Your task to perform on an android device: turn on location history Image 0: 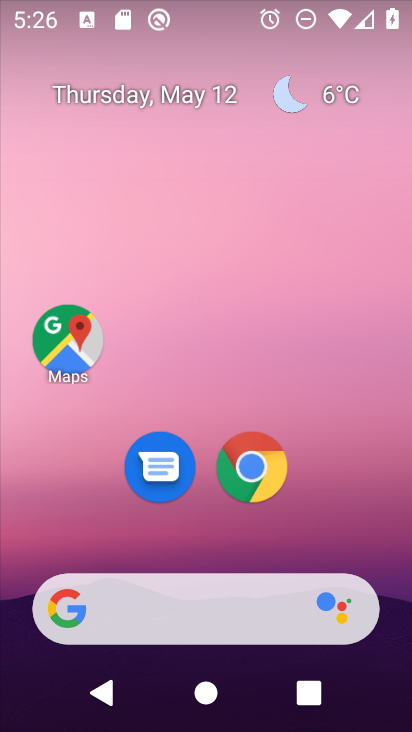
Step 0: drag from (337, 550) to (326, 5)
Your task to perform on an android device: turn on location history Image 1: 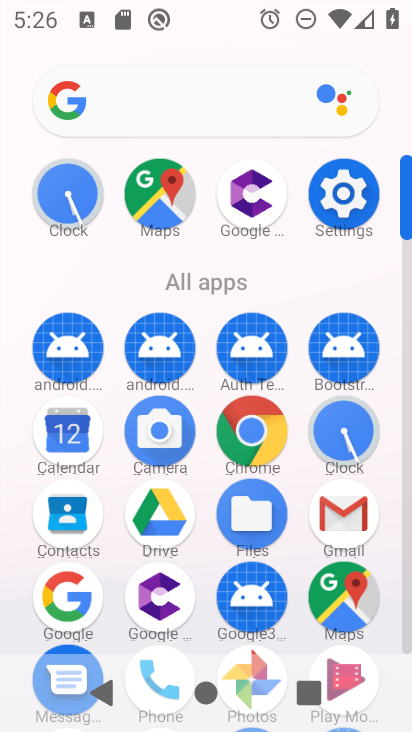
Step 1: click (343, 212)
Your task to perform on an android device: turn on location history Image 2: 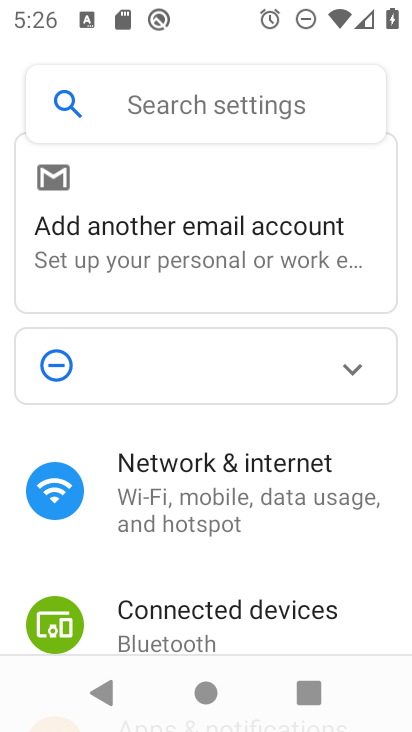
Step 2: drag from (313, 604) to (339, 61)
Your task to perform on an android device: turn on location history Image 3: 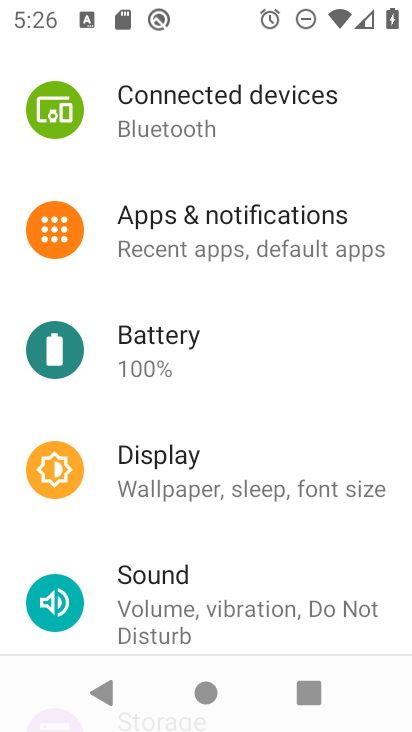
Step 3: drag from (309, 544) to (362, 154)
Your task to perform on an android device: turn on location history Image 4: 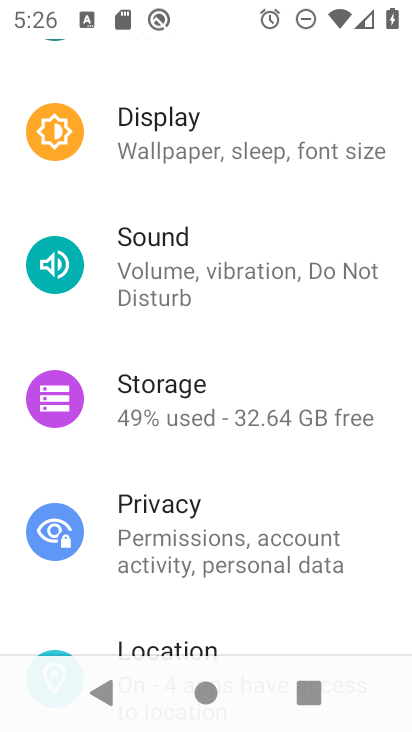
Step 4: drag from (280, 601) to (276, 365)
Your task to perform on an android device: turn on location history Image 5: 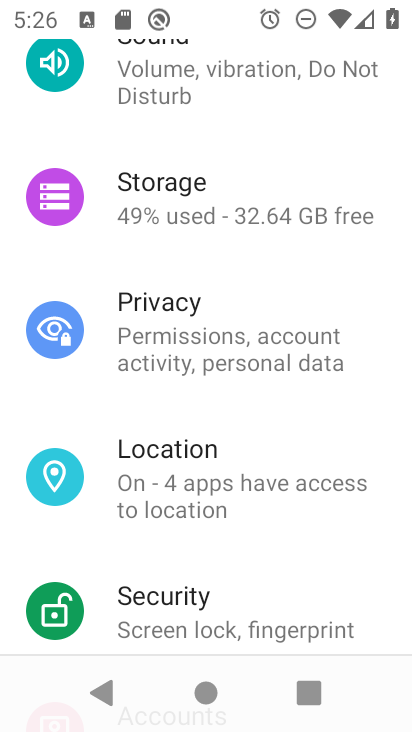
Step 5: click (224, 500)
Your task to perform on an android device: turn on location history Image 6: 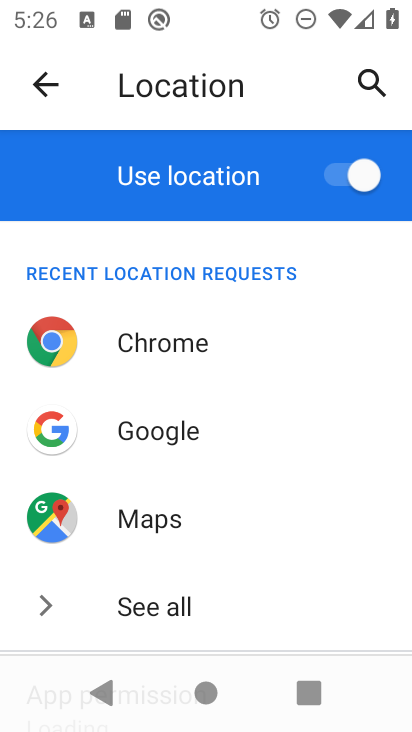
Step 6: drag from (229, 619) to (281, 103)
Your task to perform on an android device: turn on location history Image 7: 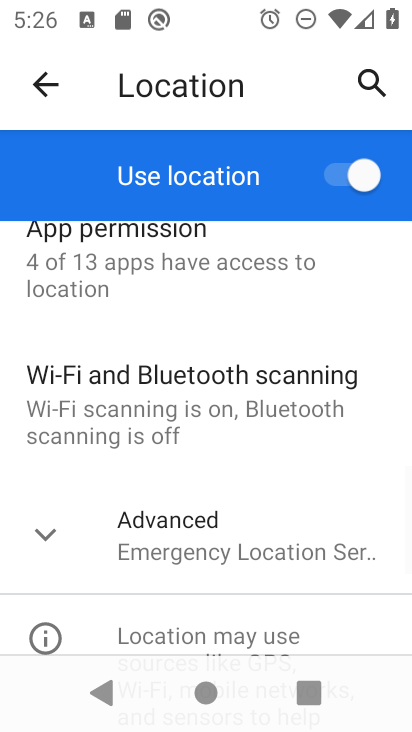
Step 7: drag from (314, 618) to (319, 438)
Your task to perform on an android device: turn on location history Image 8: 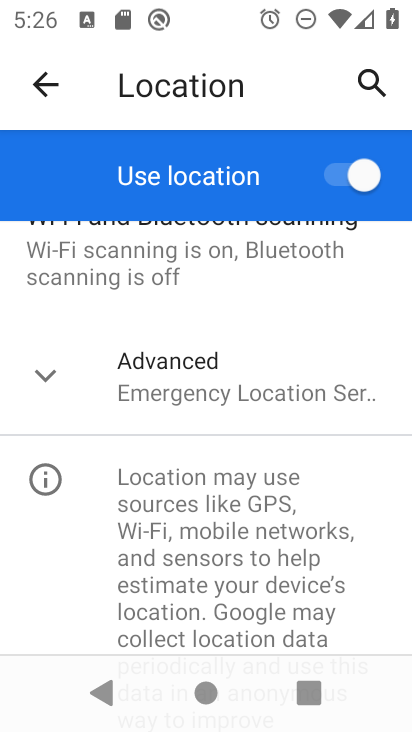
Step 8: click (287, 409)
Your task to perform on an android device: turn on location history Image 9: 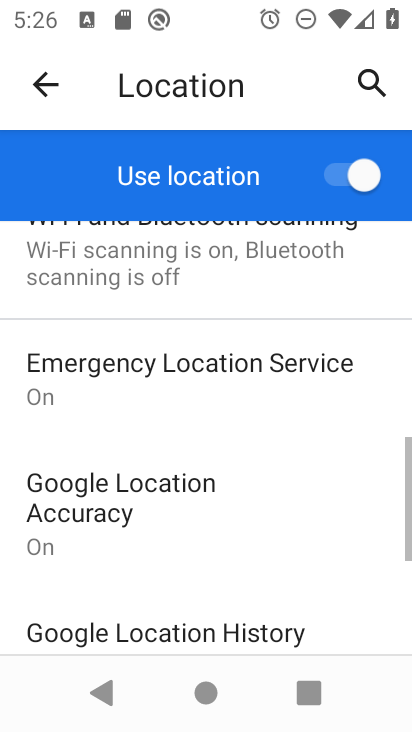
Step 9: drag from (304, 584) to (311, 223)
Your task to perform on an android device: turn on location history Image 10: 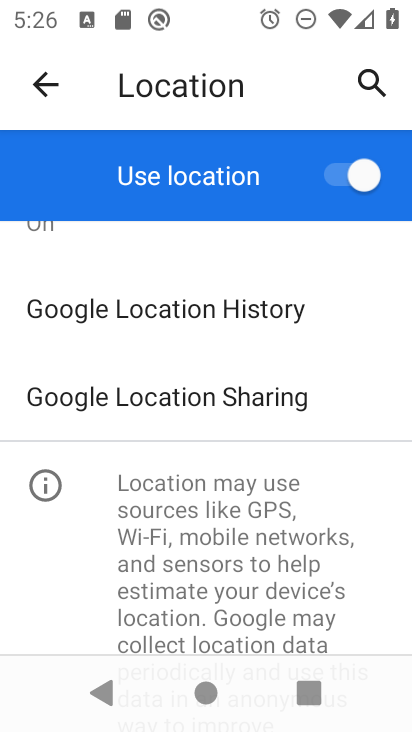
Step 10: click (298, 320)
Your task to perform on an android device: turn on location history Image 11: 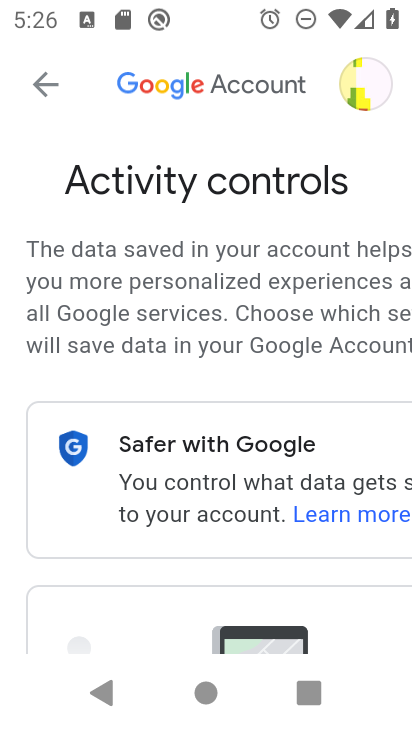
Step 11: task complete